Your task to perform on an android device: allow cookies in the chrome app Image 0: 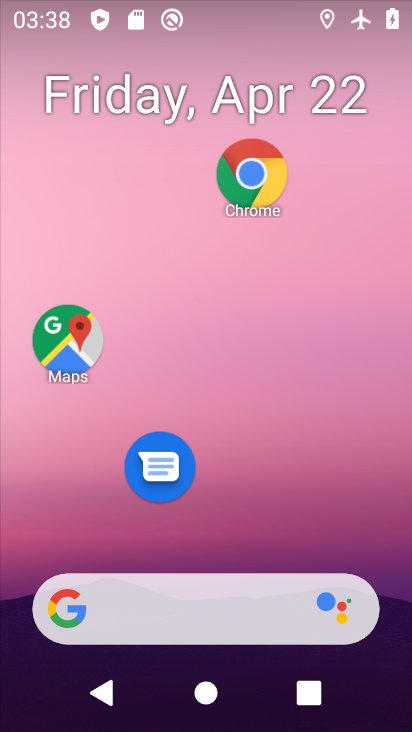
Step 0: click (263, 196)
Your task to perform on an android device: allow cookies in the chrome app Image 1: 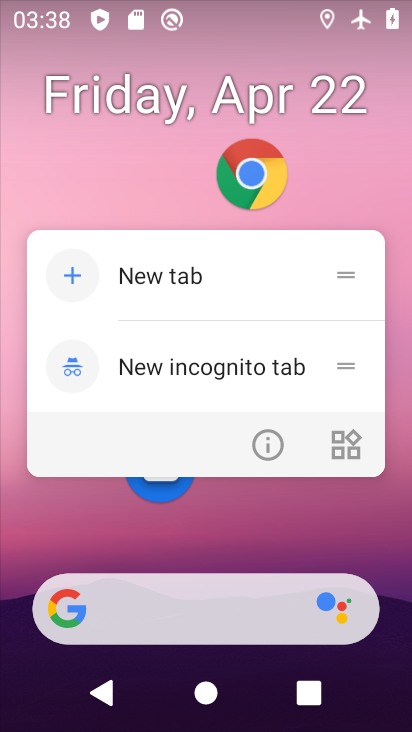
Step 1: click (265, 455)
Your task to perform on an android device: allow cookies in the chrome app Image 2: 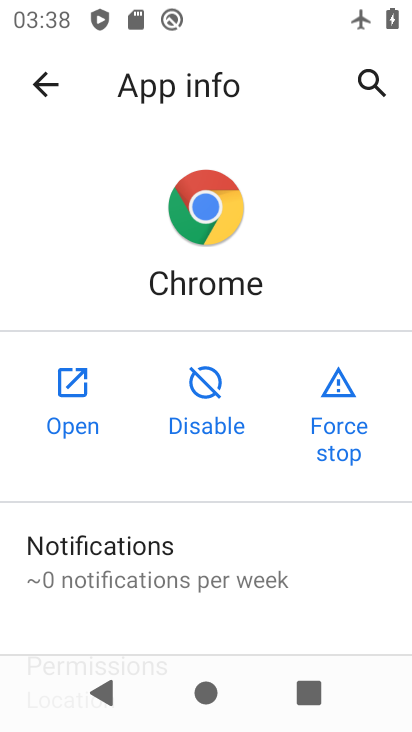
Step 2: click (60, 398)
Your task to perform on an android device: allow cookies in the chrome app Image 3: 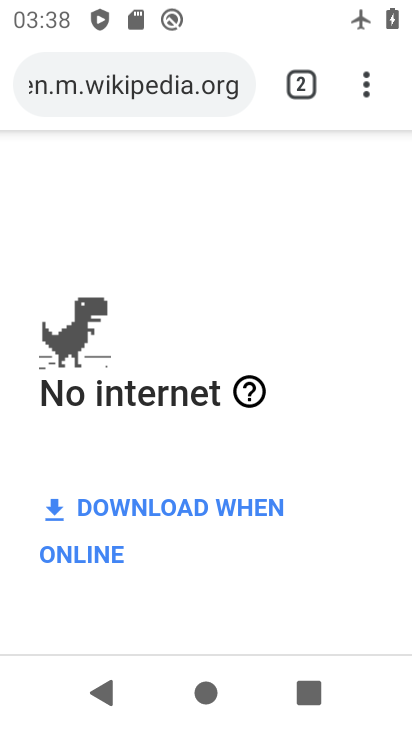
Step 3: click (361, 91)
Your task to perform on an android device: allow cookies in the chrome app Image 4: 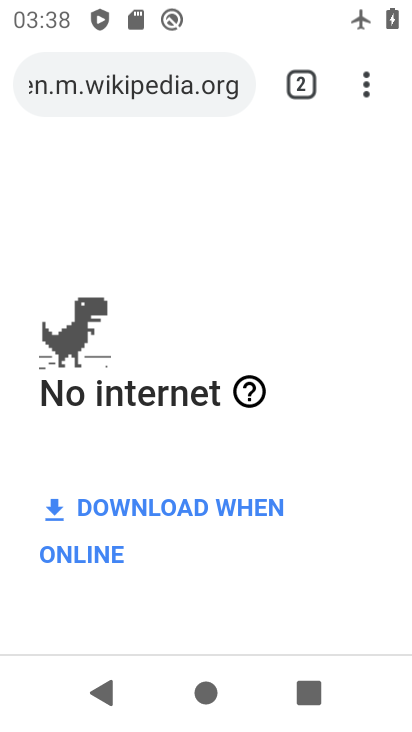
Step 4: click (367, 94)
Your task to perform on an android device: allow cookies in the chrome app Image 5: 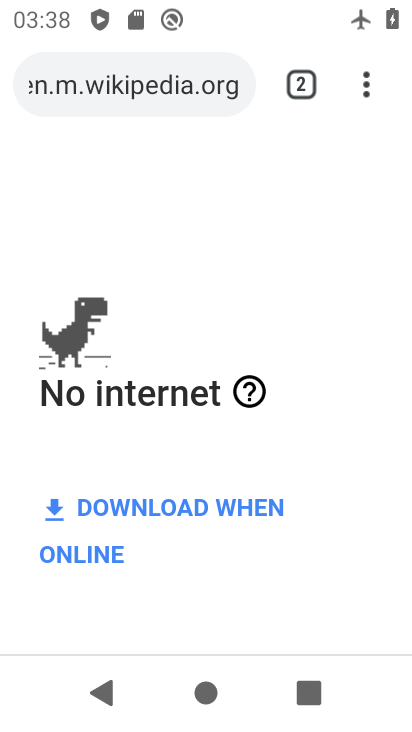
Step 5: click (372, 83)
Your task to perform on an android device: allow cookies in the chrome app Image 6: 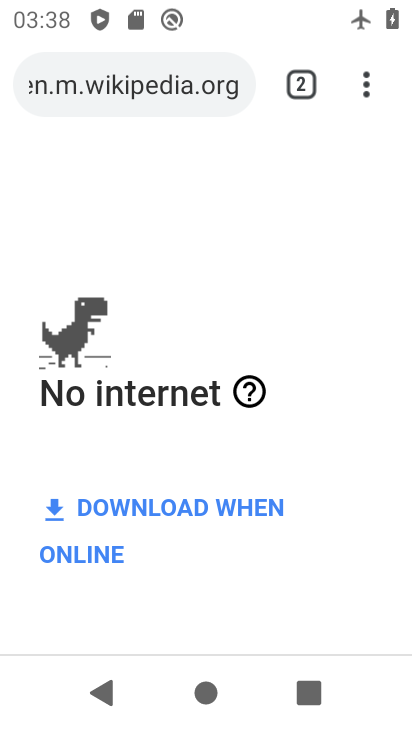
Step 6: click (366, 86)
Your task to perform on an android device: allow cookies in the chrome app Image 7: 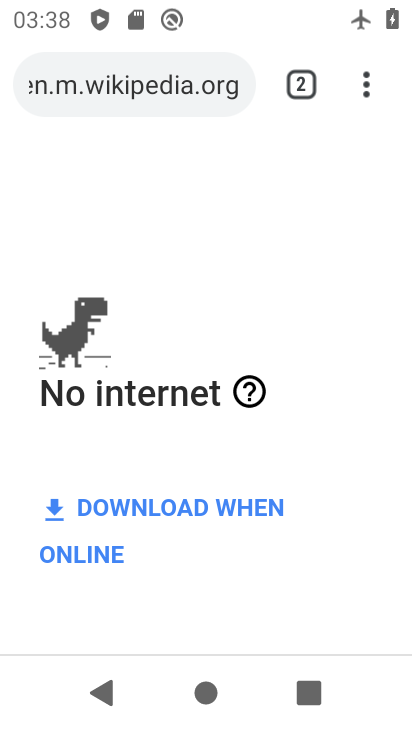
Step 7: click (377, 85)
Your task to perform on an android device: allow cookies in the chrome app Image 8: 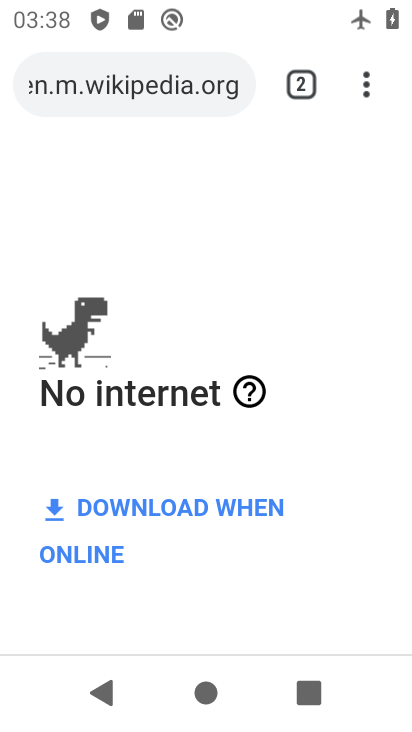
Step 8: click (370, 82)
Your task to perform on an android device: allow cookies in the chrome app Image 9: 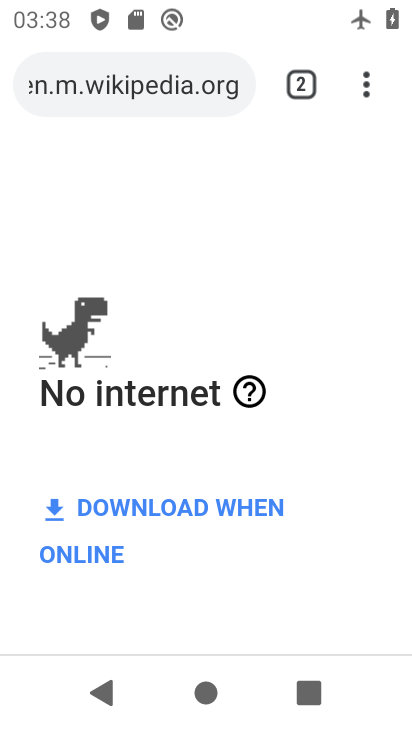
Step 9: click (367, 91)
Your task to perform on an android device: allow cookies in the chrome app Image 10: 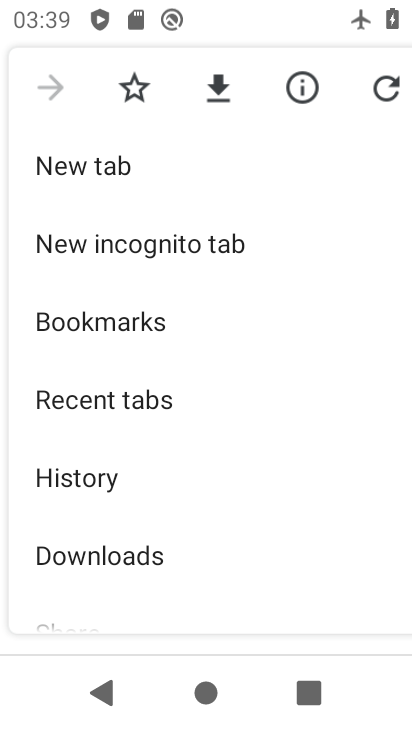
Step 10: drag from (231, 520) to (223, 243)
Your task to perform on an android device: allow cookies in the chrome app Image 11: 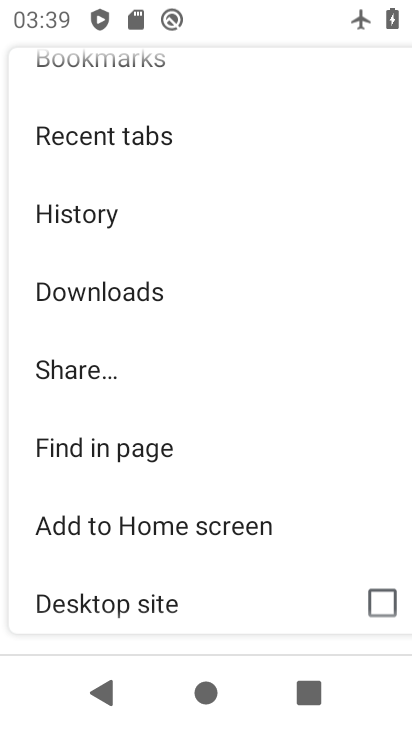
Step 11: drag from (256, 539) to (204, 227)
Your task to perform on an android device: allow cookies in the chrome app Image 12: 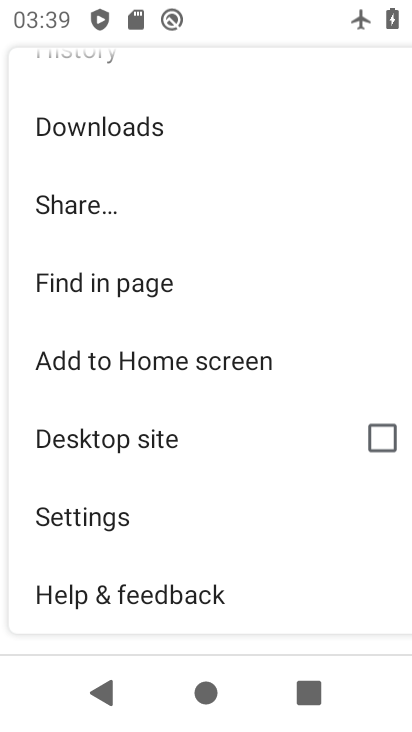
Step 12: click (158, 528)
Your task to perform on an android device: allow cookies in the chrome app Image 13: 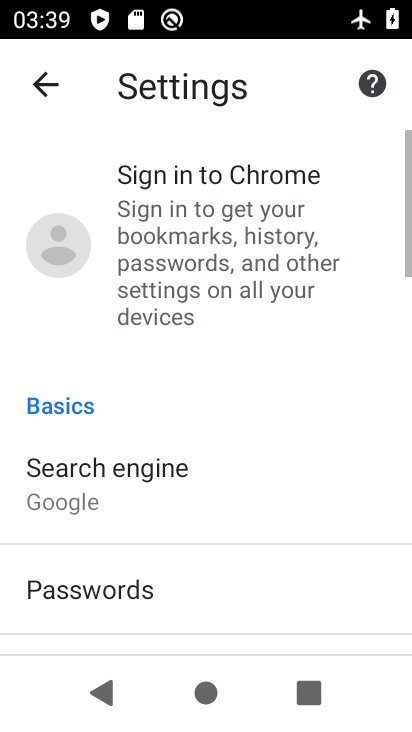
Step 13: drag from (201, 564) to (212, 310)
Your task to perform on an android device: allow cookies in the chrome app Image 14: 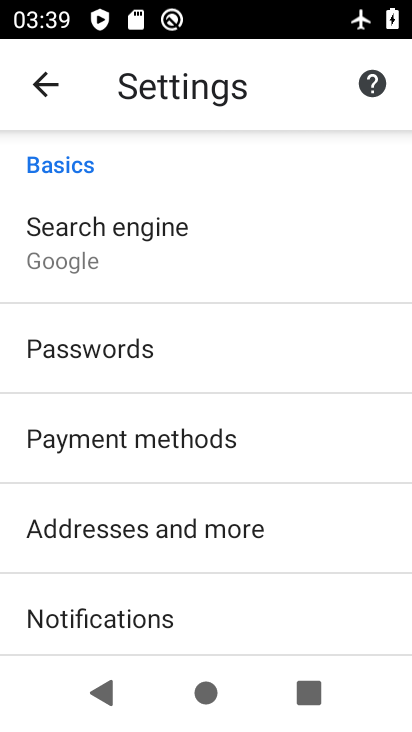
Step 14: drag from (215, 534) to (202, 279)
Your task to perform on an android device: allow cookies in the chrome app Image 15: 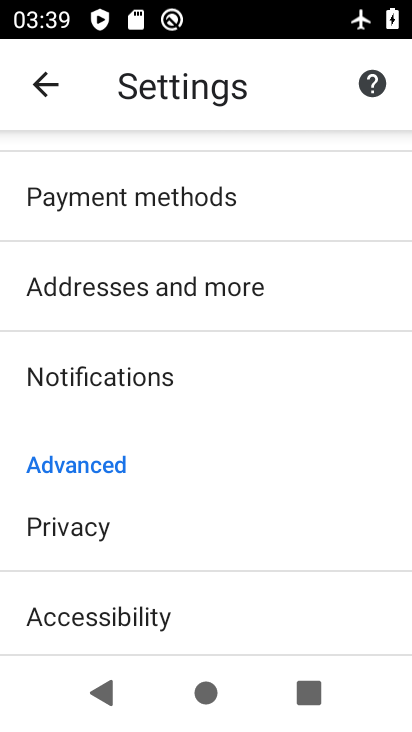
Step 15: drag from (230, 536) to (234, 265)
Your task to perform on an android device: allow cookies in the chrome app Image 16: 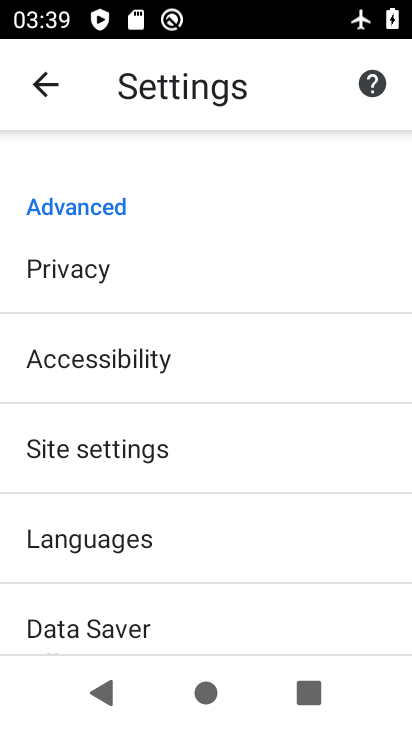
Step 16: click (206, 444)
Your task to perform on an android device: allow cookies in the chrome app Image 17: 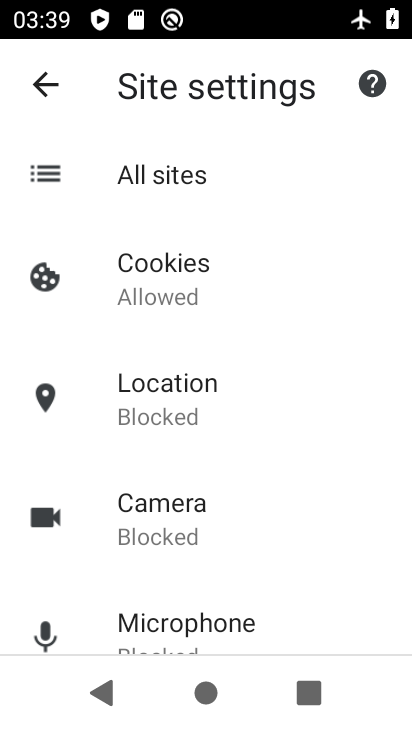
Step 17: click (218, 301)
Your task to perform on an android device: allow cookies in the chrome app Image 18: 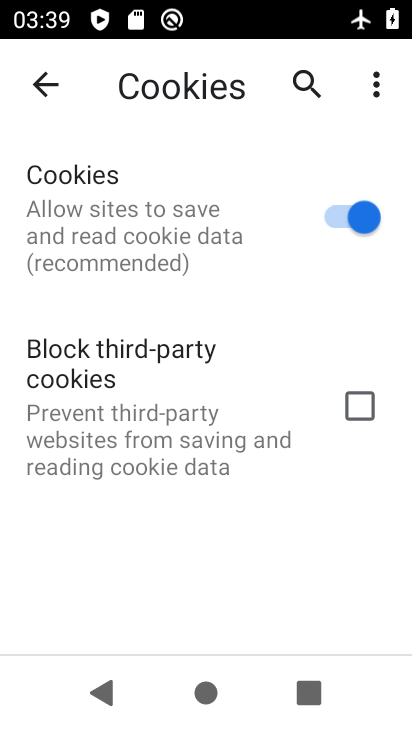
Step 18: task complete